Your task to perform on an android device: Open wifi settings Image 0: 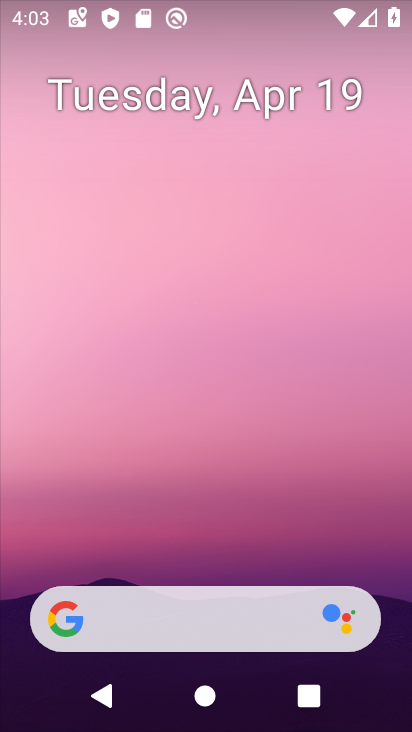
Step 0: drag from (214, 532) to (195, 150)
Your task to perform on an android device: Open wifi settings Image 1: 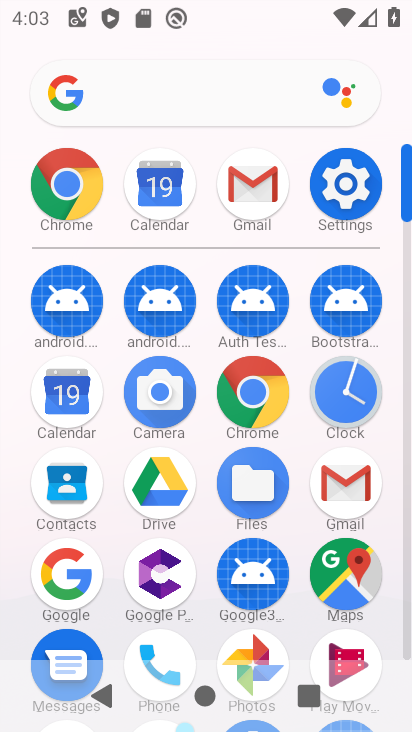
Step 1: click (348, 190)
Your task to perform on an android device: Open wifi settings Image 2: 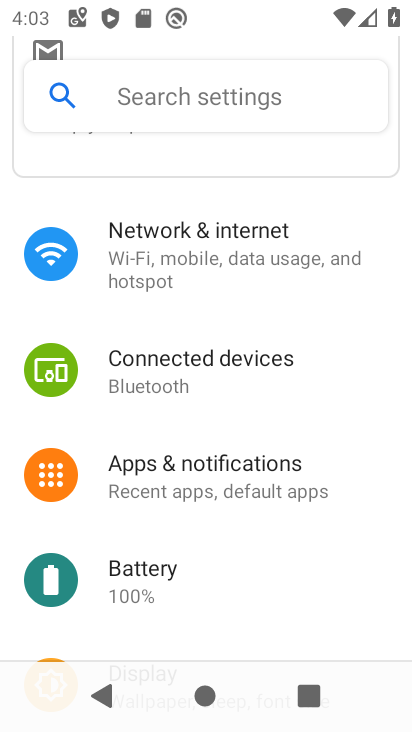
Step 2: click (260, 232)
Your task to perform on an android device: Open wifi settings Image 3: 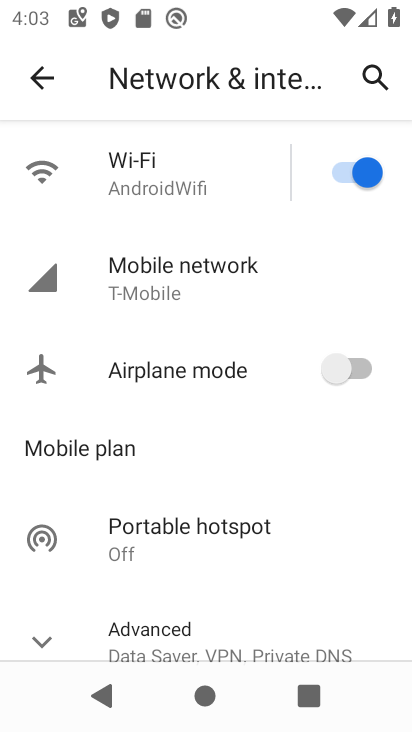
Step 3: click (181, 175)
Your task to perform on an android device: Open wifi settings Image 4: 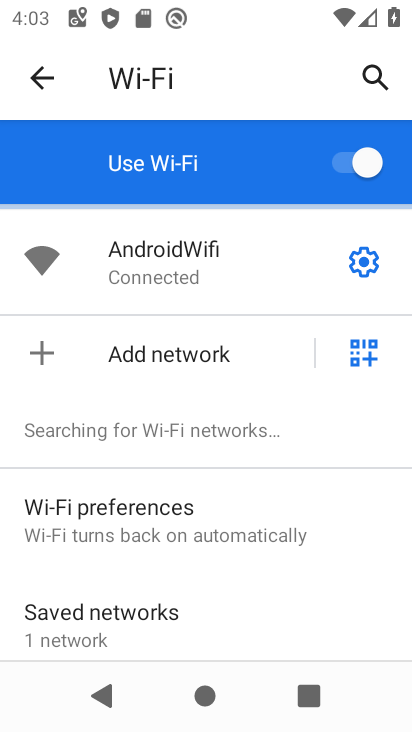
Step 4: click (368, 266)
Your task to perform on an android device: Open wifi settings Image 5: 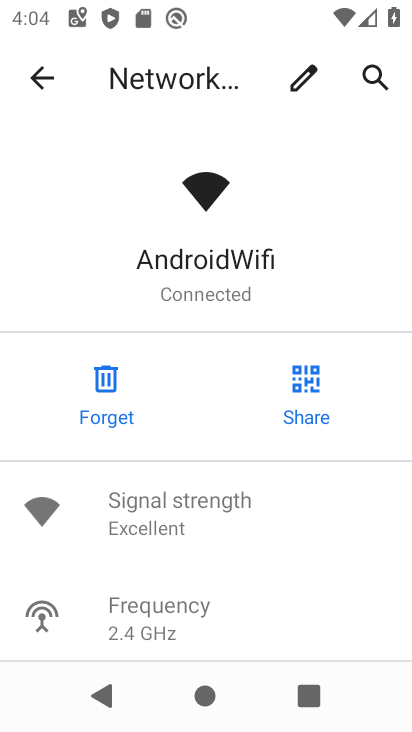
Step 5: task complete